Your task to perform on an android device: Is it going to rain tomorrow? Image 0: 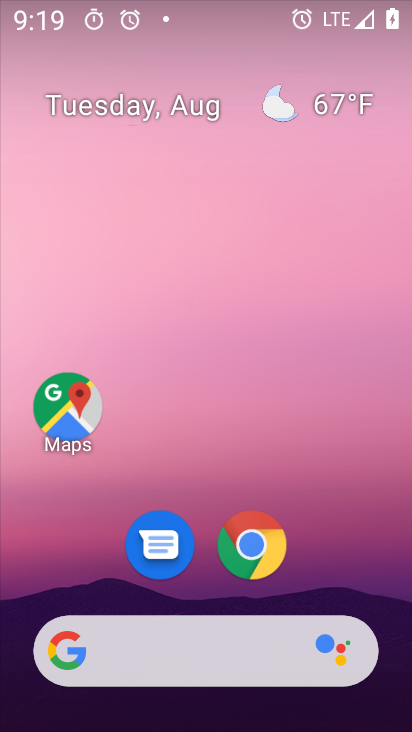
Step 0: drag from (258, 546) to (383, 12)
Your task to perform on an android device: Is it going to rain tomorrow? Image 1: 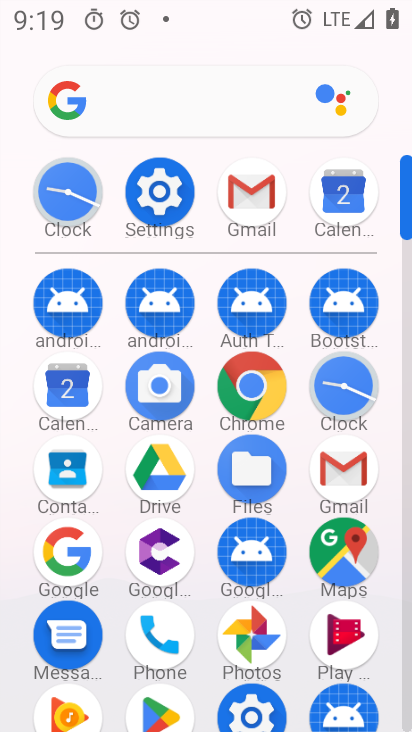
Step 1: click (170, 208)
Your task to perform on an android device: Is it going to rain tomorrow? Image 2: 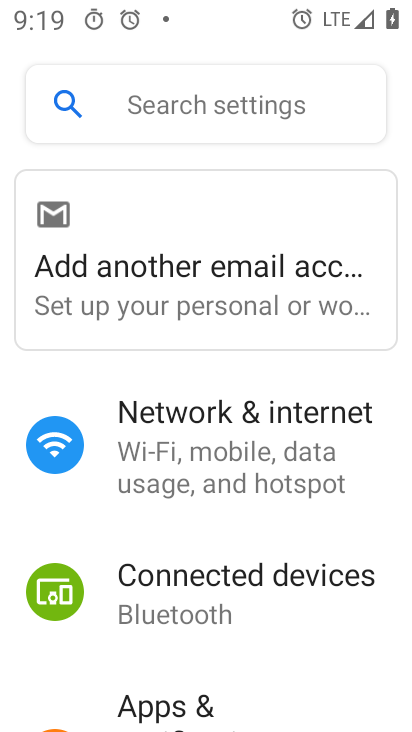
Step 2: click (205, 207)
Your task to perform on an android device: Is it going to rain tomorrow? Image 3: 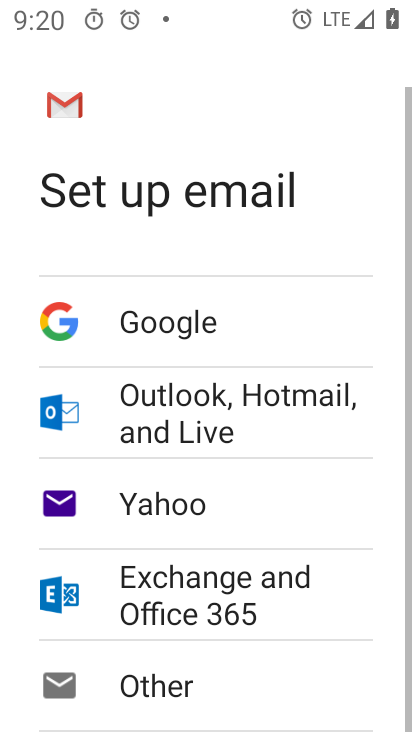
Step 3: press home button
Your task to perform on an android device: Is it going to rain tomorrow? Image 4: 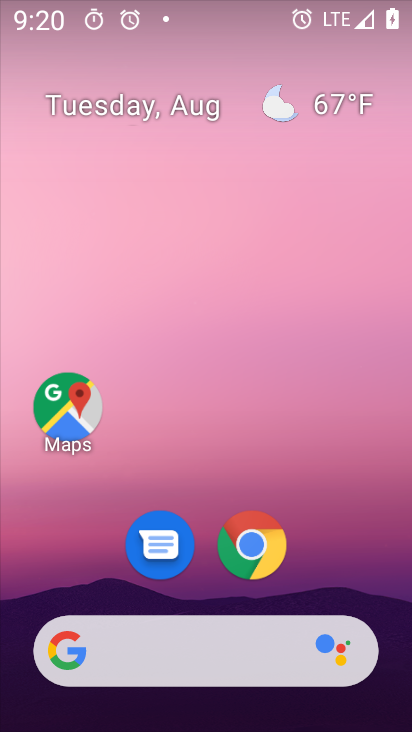
Step 4: drag from (313, 526) to (366, 116)
Your task to perform on an android device: Is it going to rain tomorrow? Image 5: 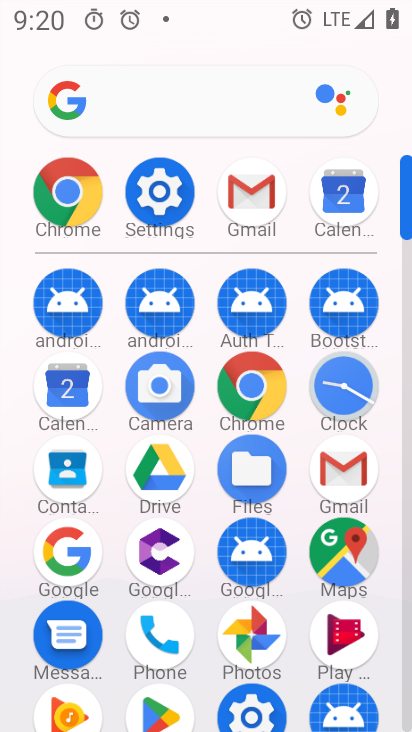
Step 5: click (84, 562)
Your task to perform on an android device: Is it going to rain tomorrow? Image 6: 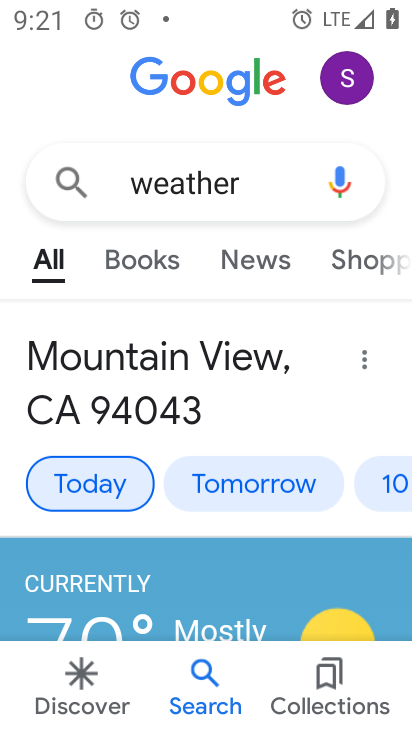
Step 6: drag from (308, 484) to (12, 497)
Your task to perform on an android device: Is it going to rain tomorrow? Image 7: 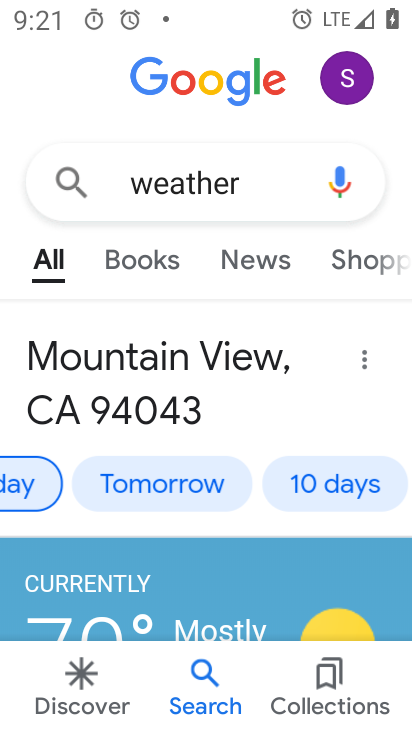
Step 7: click (176, 486)
Your task to perform on an android device: Is it going to rain tomorrow? Image 8: 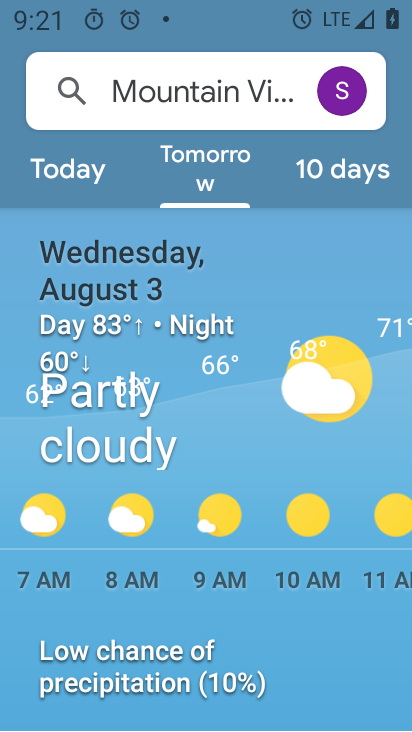
Step 8: task complete